Your task to perform on an android device: Open Chrome and go to the settings page Image 0: 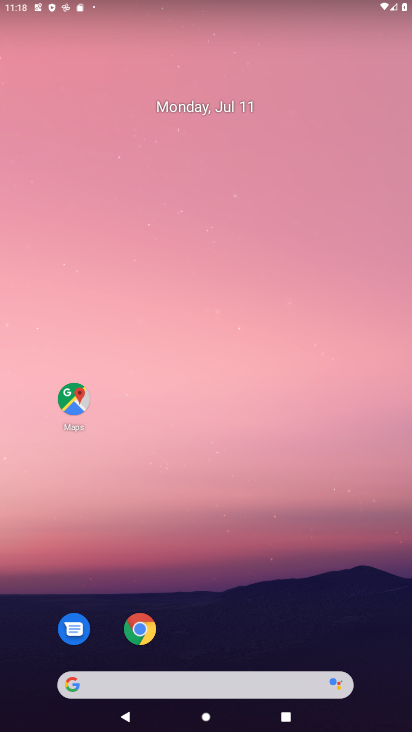
Step 0: drag from (277, 622) to (268, 153)
Your task to perform on an android device: Open Chrome and go to the settings page Image 1: 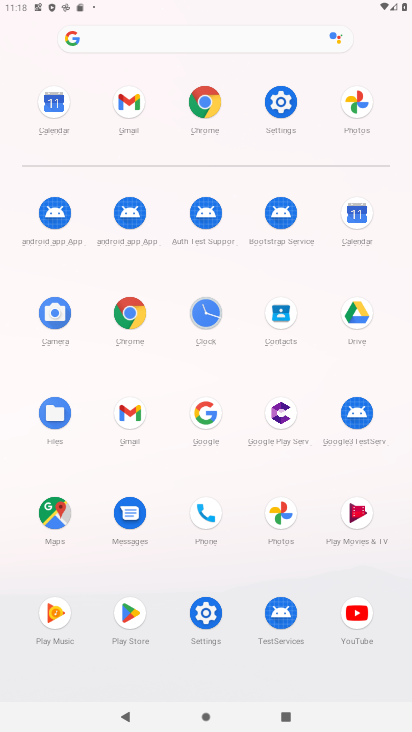
Step 1: click (215, 125)
Your task to perform on an android device: Open Chrome and go to the settings page Image 2: 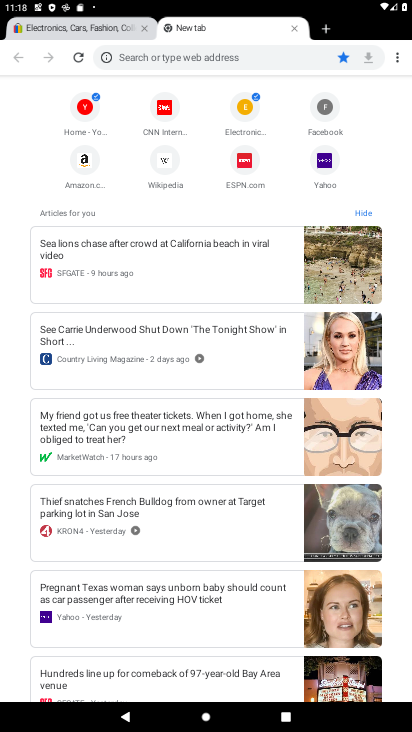
Step 2: click (392, 59)
Your task to perform on an android device: Open Chrome and go to the settings page Image 3: 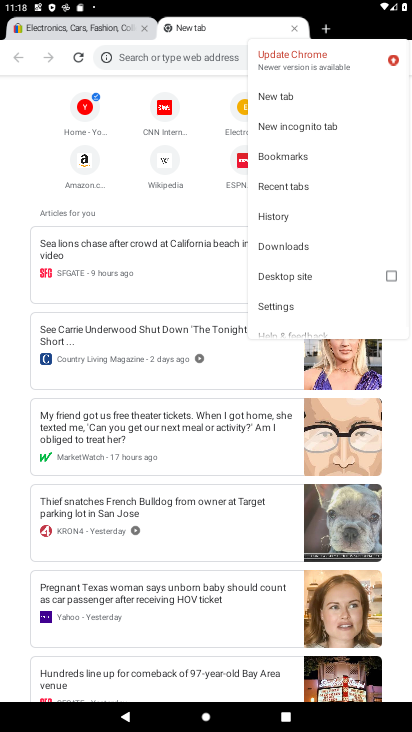
Step 3: click (288, 303)
Your task to perform on an android device: Open Chrome and go to the settings page Image 4: 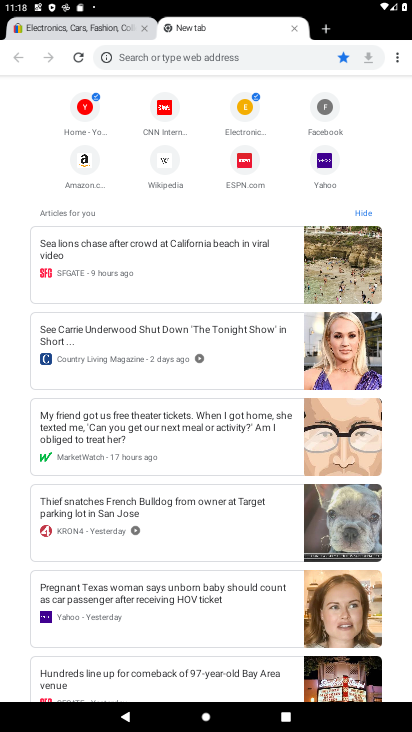
Step 4: task complete